Your task to perform on an android device: Open ESPN.com Image 0: 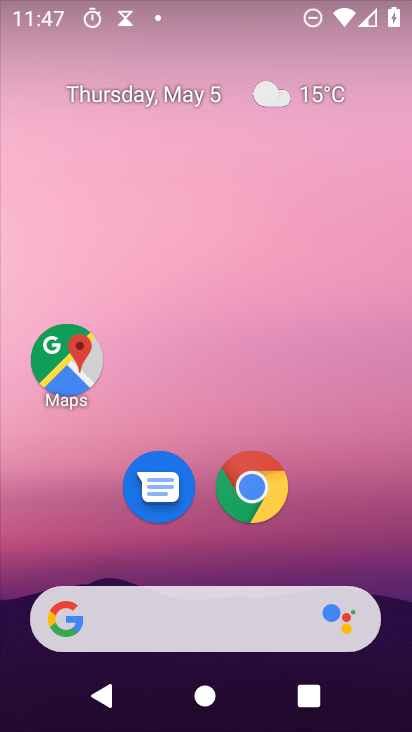
Step 0: click (238, 67)
Your task to perform on an android device: Open ESPN.com Image 1: 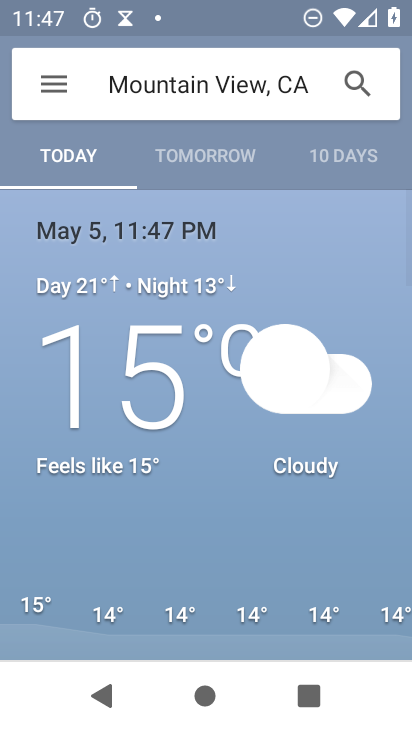
Step 1: press home button
Your task to perform on an android device: Open ESPN.com Image 2: 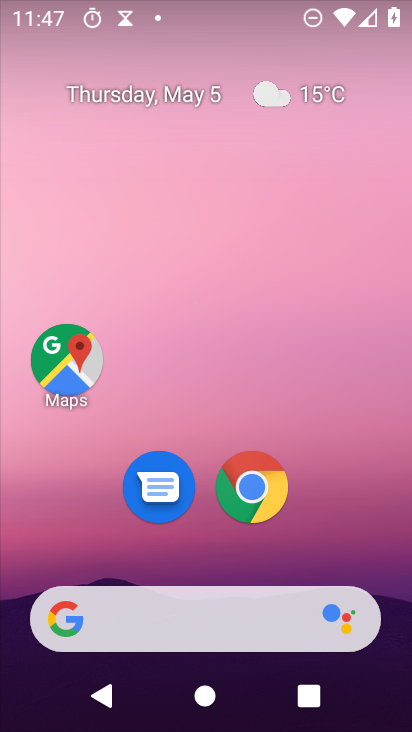
Step 2: drag from (292, 540) to (176, 154)
Your task to perform on an android device: Open ESPN.com Image 3: 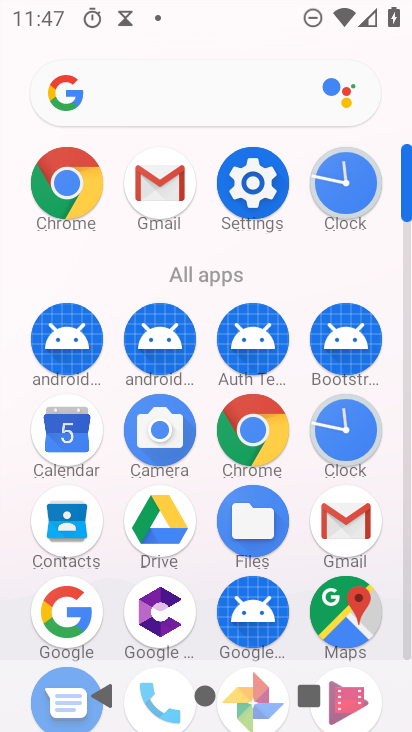
Step 3: click (251, 435)
Your task to perform on an android device: Open ESPN.com Image 4: 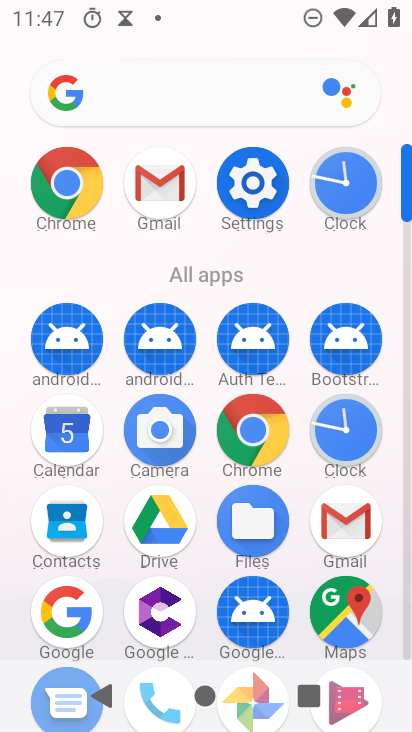
Step 4: click (251, 435)
Your task to perform on an android device: Open ESPN.com Image 5: 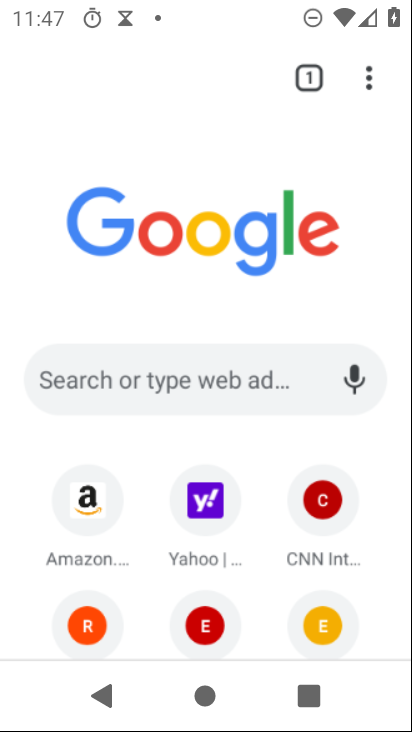
Step 5: click (251, 435)
Your task to perform on an android device: Open ESPN.com Image 6: 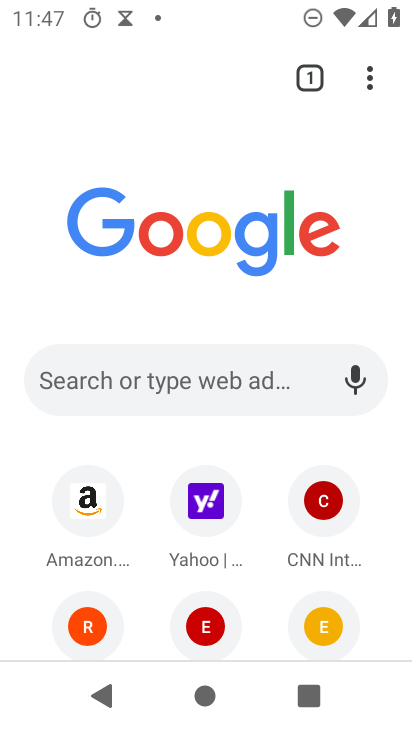
Step 6: drag from (218, 606) to (174, 217)
Your task to perform on an android device: Open ESPN.com Image 7: 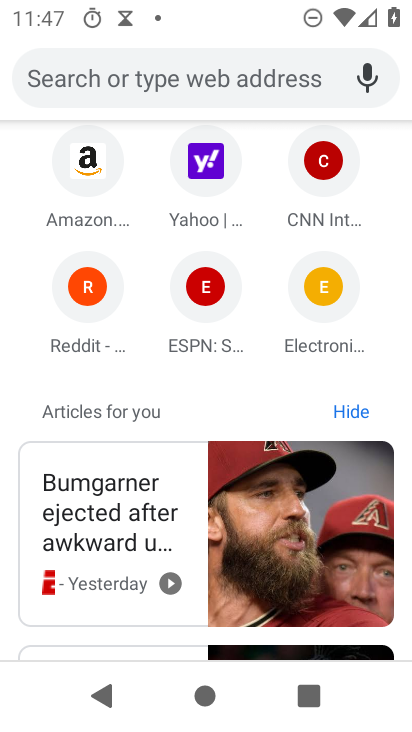
Step 7: click (191, 287)
Your task to perform on an android device: Open ESPN.com Image 8: 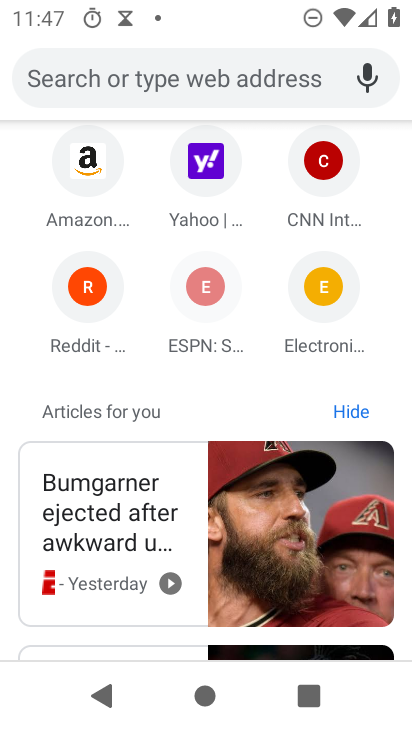
Step 8: click (192, 286)
Your task to perform on an android device: Open ESPN.com Image 9: 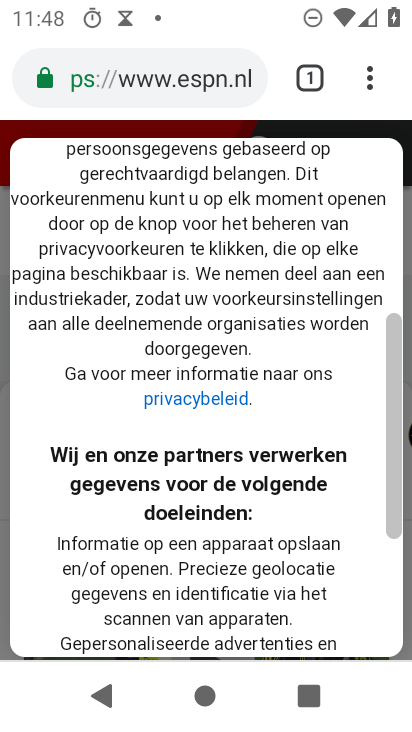
Step 9: task complete